Your task to perform on an android device: Open Chrome and go to settings Image 0: 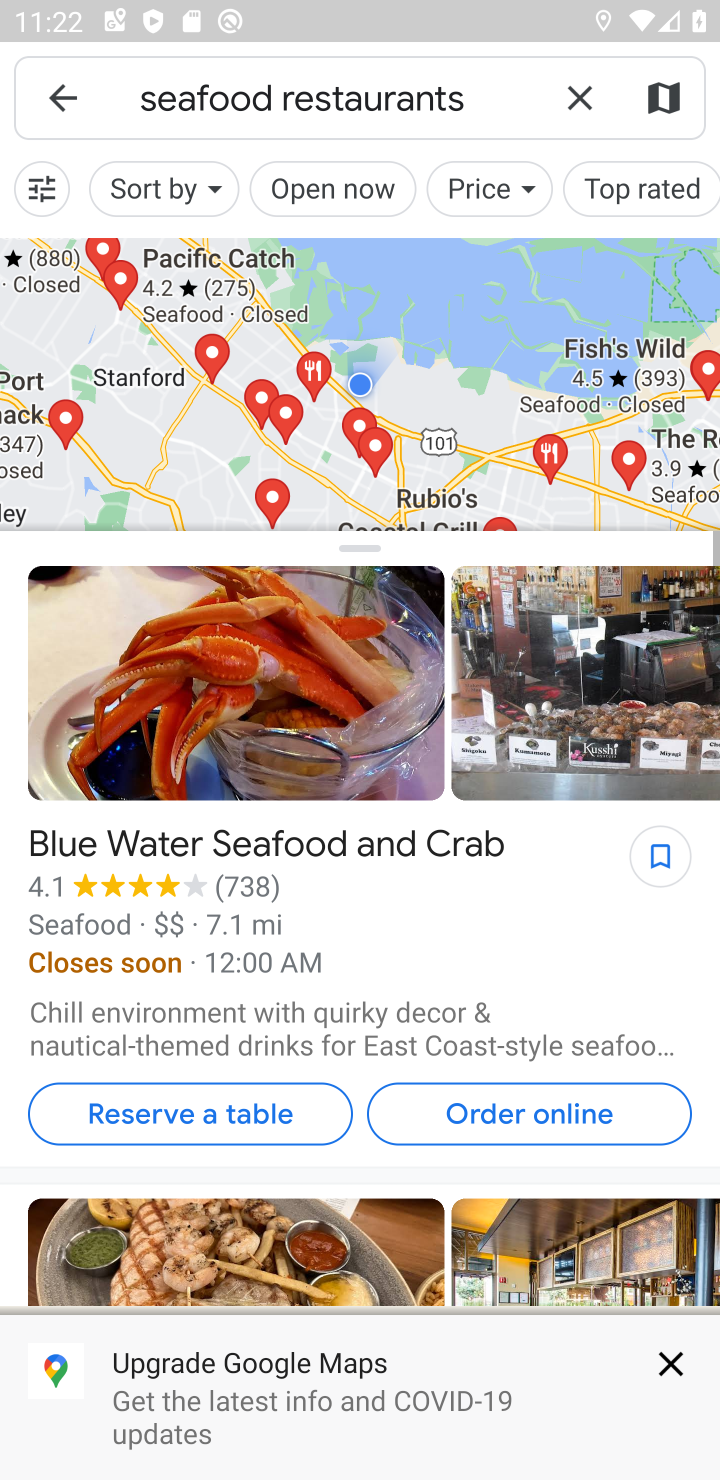
Step 0: press home button
Your task to perform on an android device: Open Chrome and go to settings Image 1: 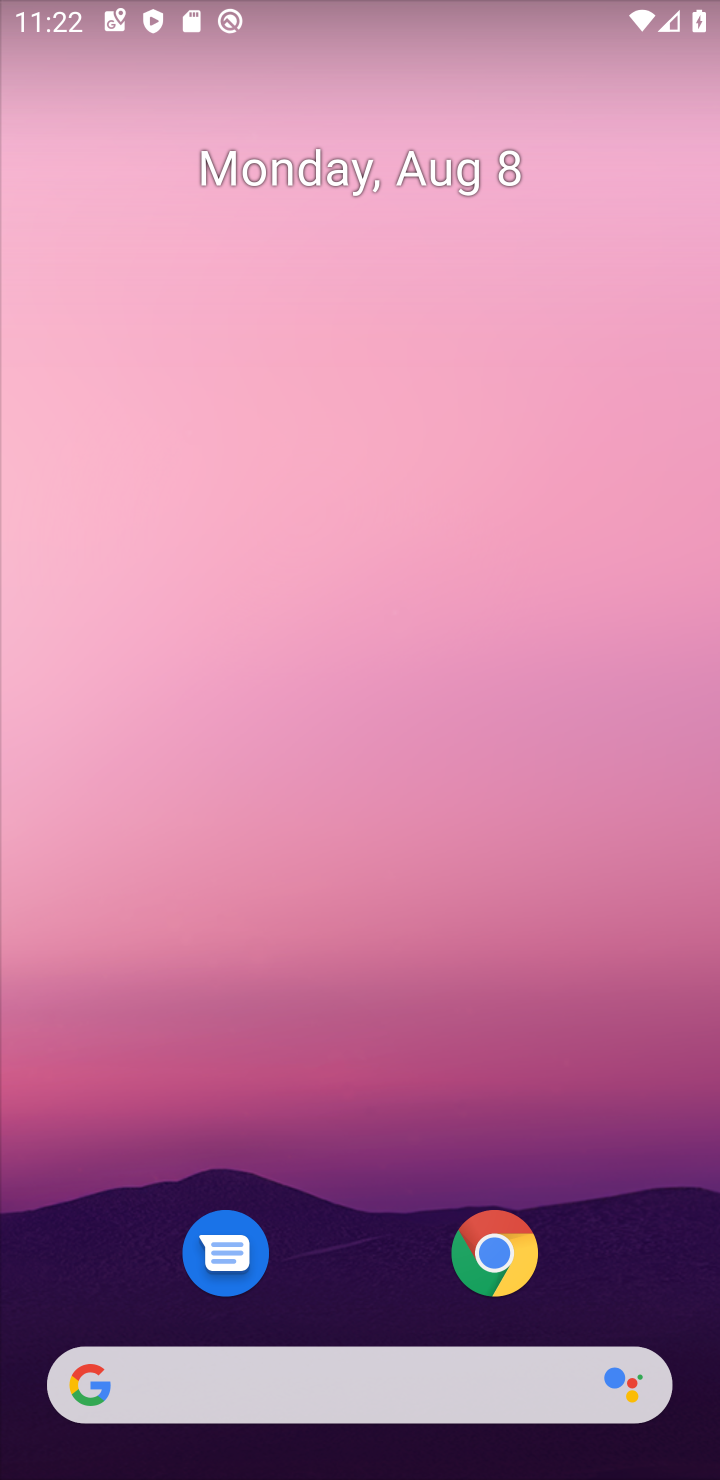
Step 1: drag from (374, 1282) to (431, 493)
Your task to perform on an android device: Open Chrome and go to settings Image 2: 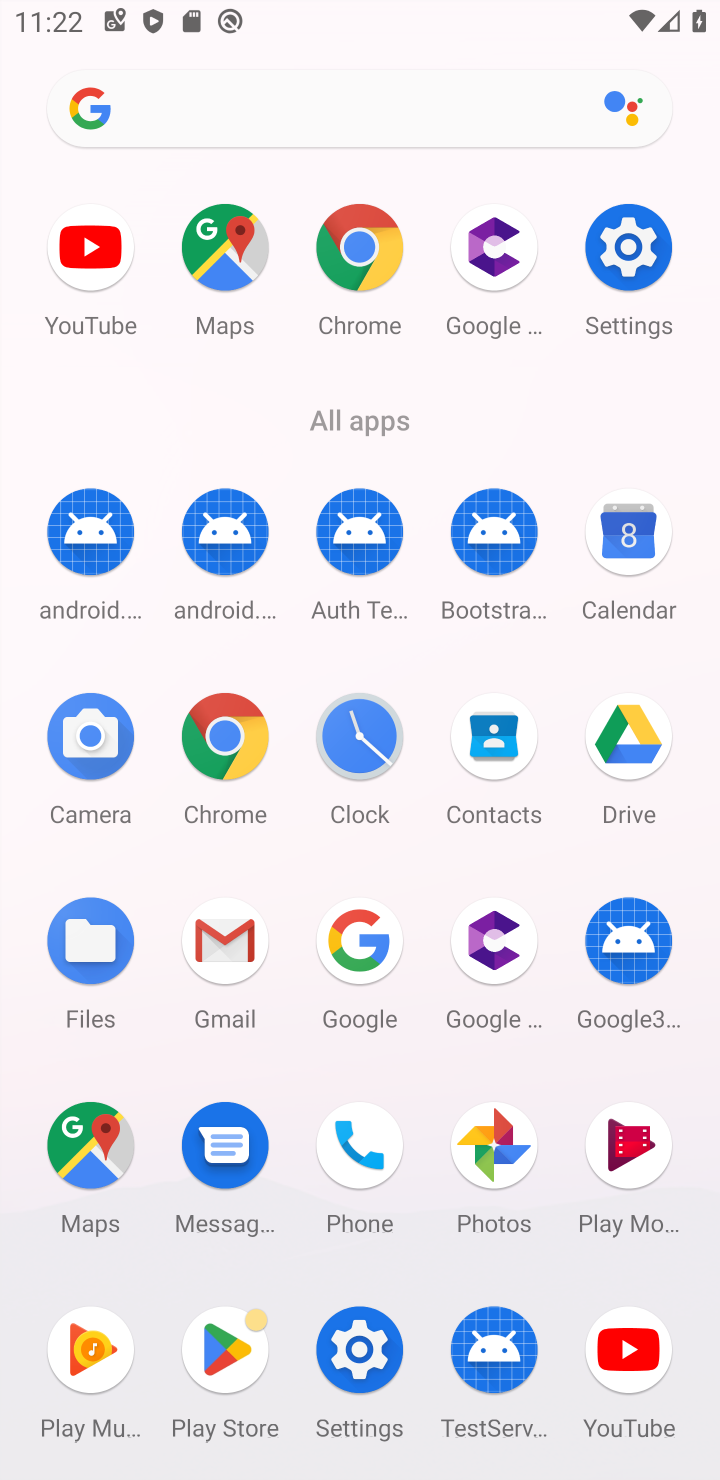
Step 2: click (371, 243)
Your task to perform on an android device: Open Chrome and go to settings Image 3: 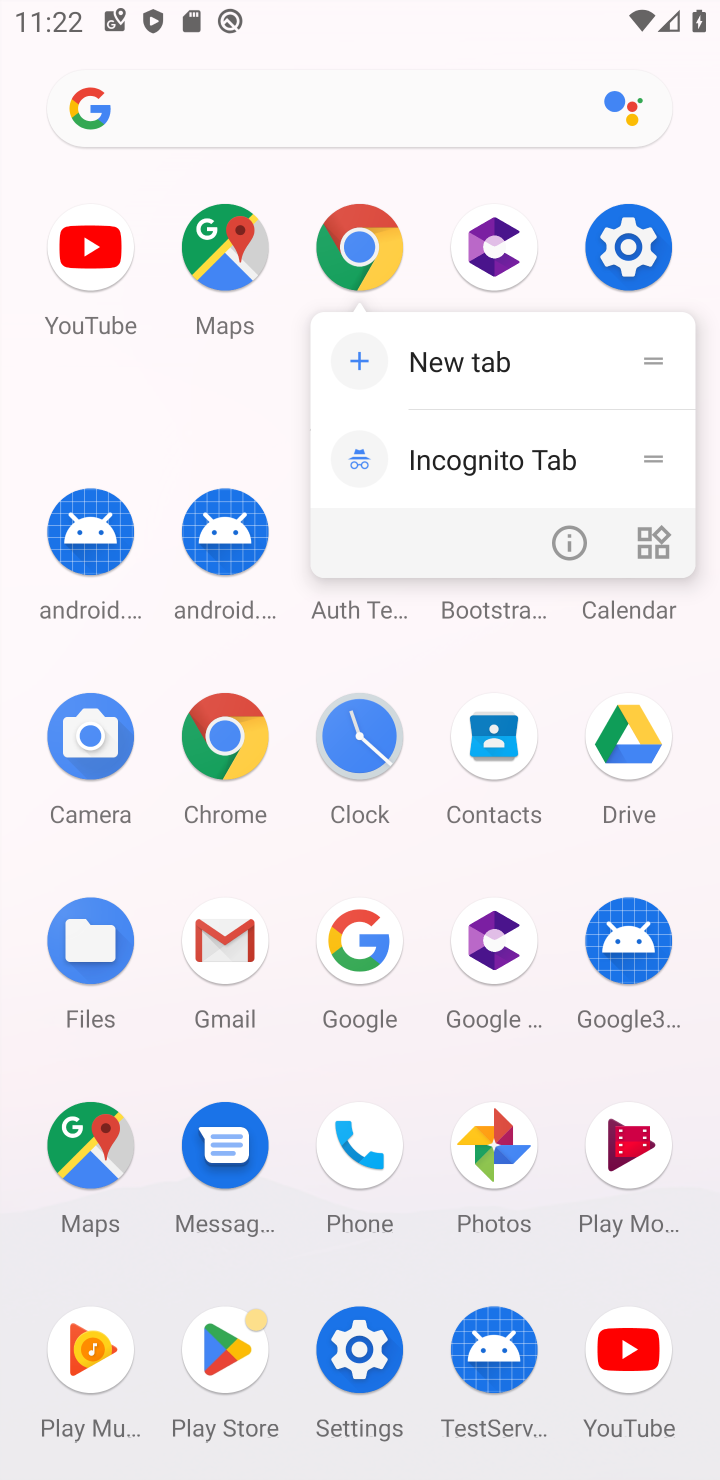
Step 3: click (367, 251)
Your task to perform on an android device: Open Chrome and go to settings Image 4: 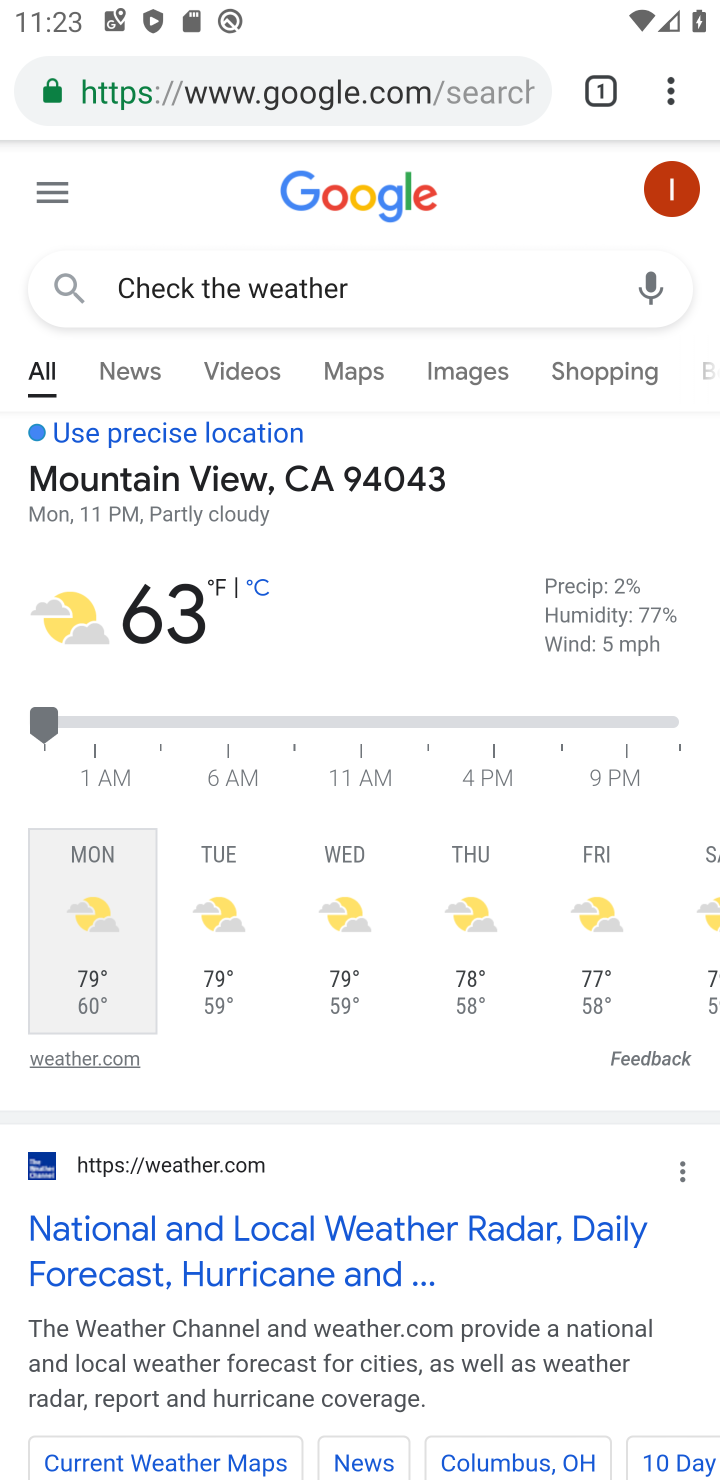
Step 4: click (665, 88)
Your task to perform on an android device: Open Chrome and go to settings Image 5: 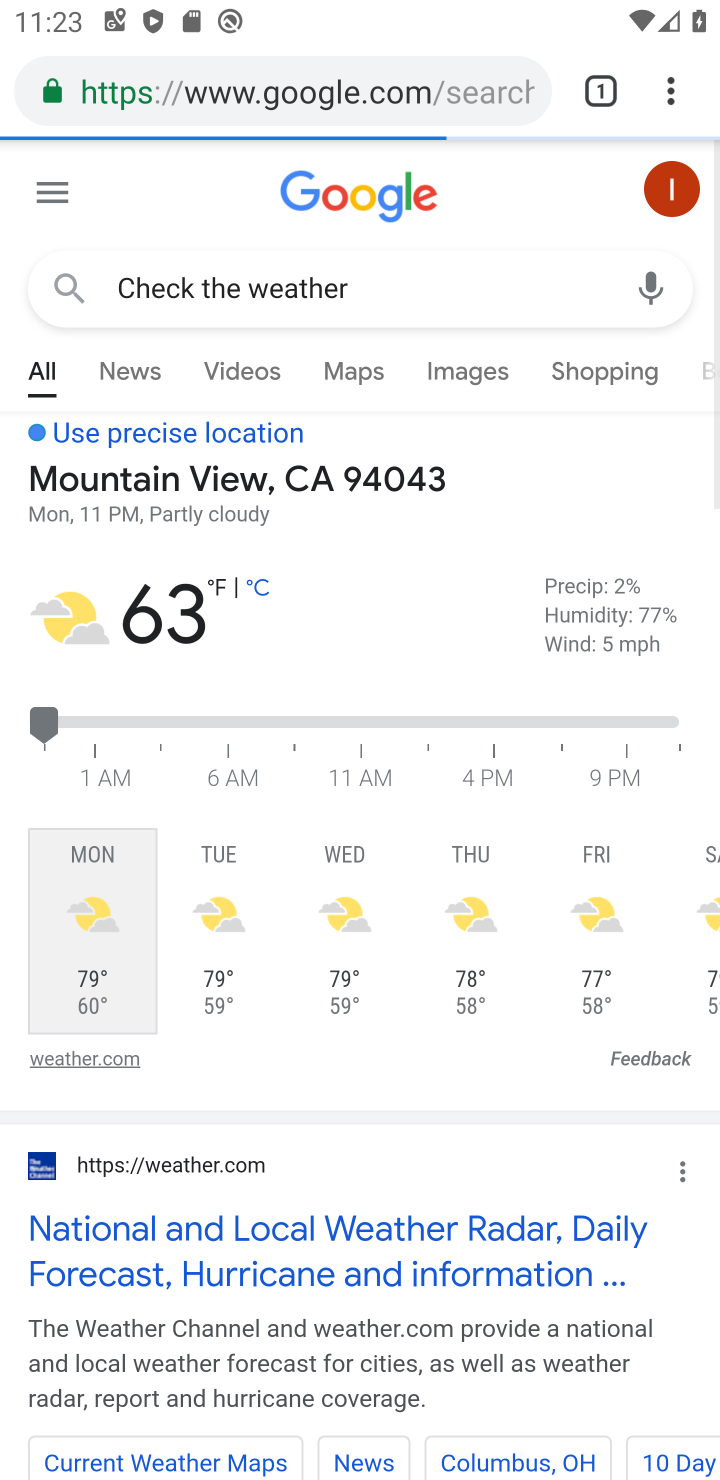
Step 5: click (665, 101)
Your task to perform on an android device: Open Chrome and go to settings Image 6: 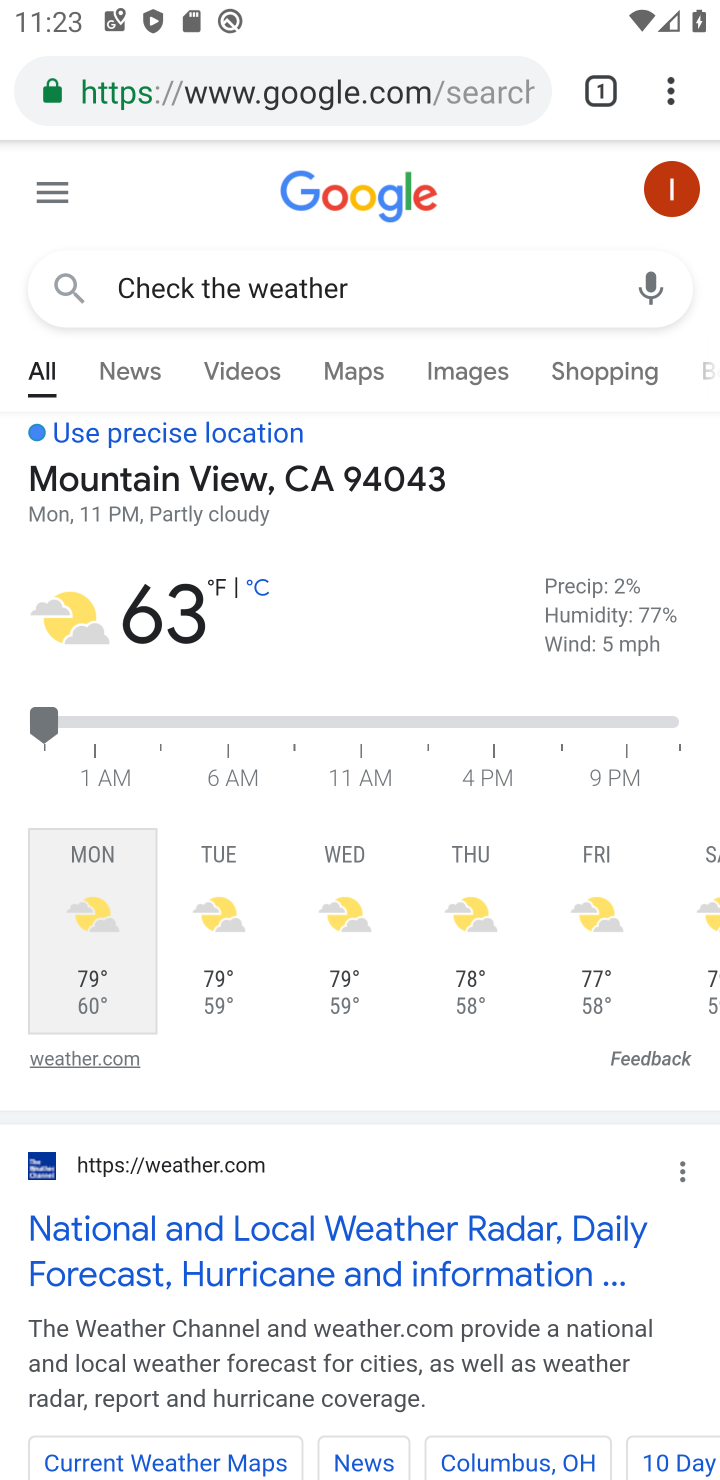
Step 6: click (665, 101)
Your task to perform on an android device: Open Chrome and go to settings Image 7: 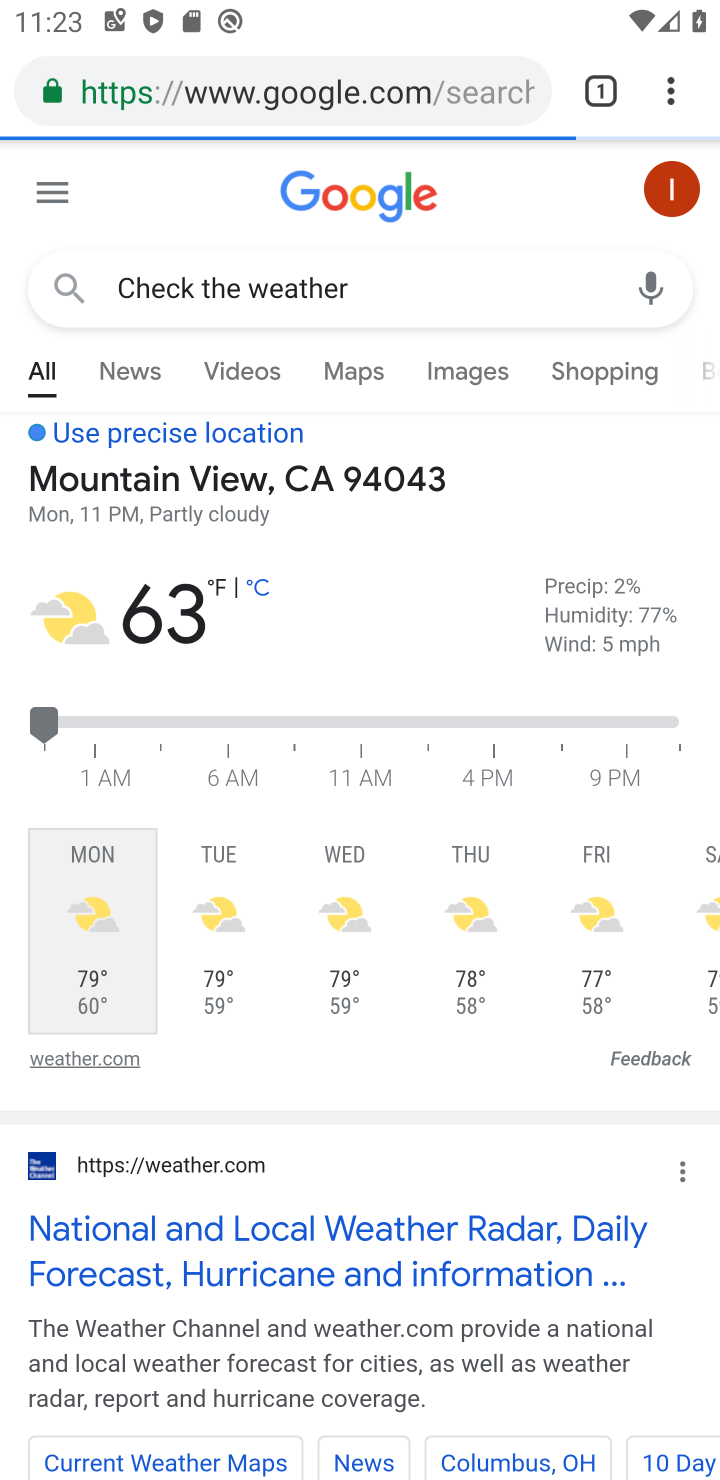
Step 7: click (668, 94)
Your task to perform on an android device: Open Chrome and go to settings Image 8: 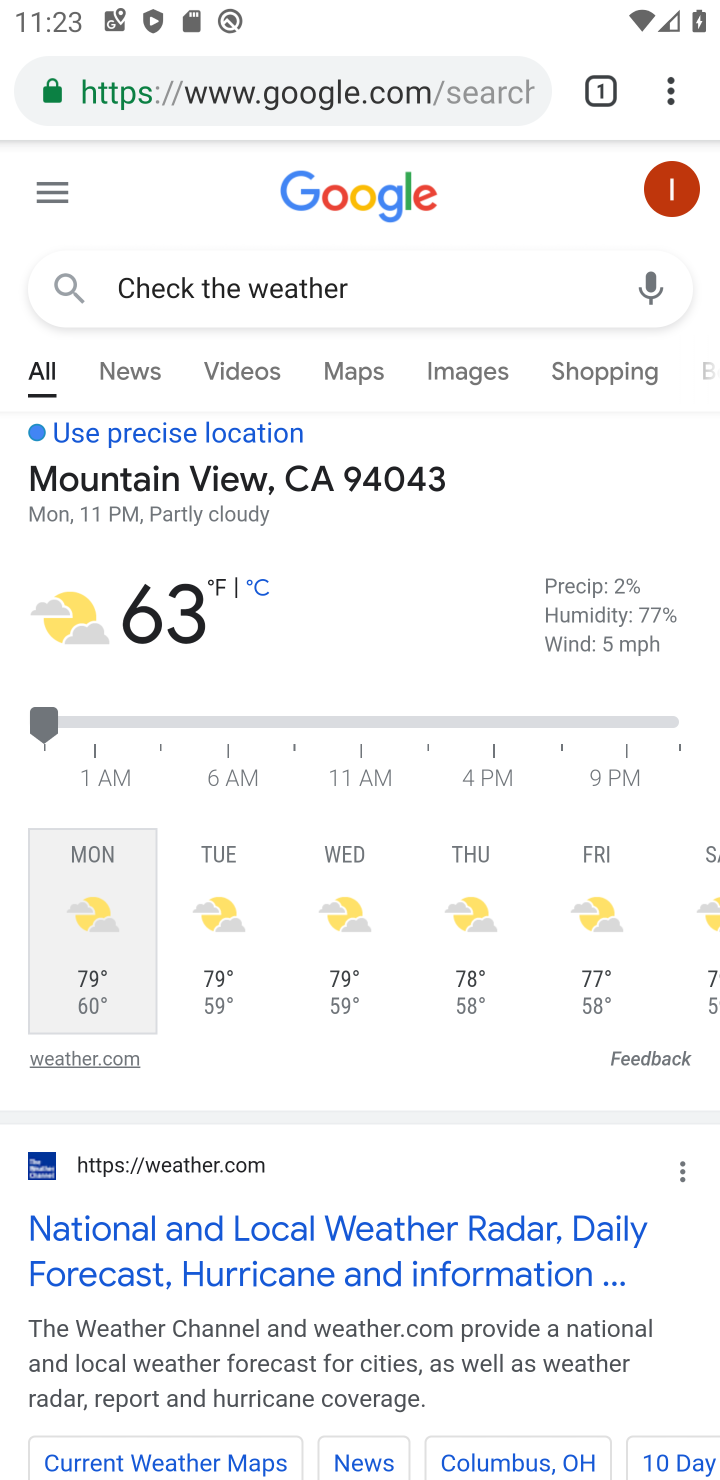
Step 8: click (657, 86)
Your task to perform on an android device: Open Chrome and go to settings Image 9: 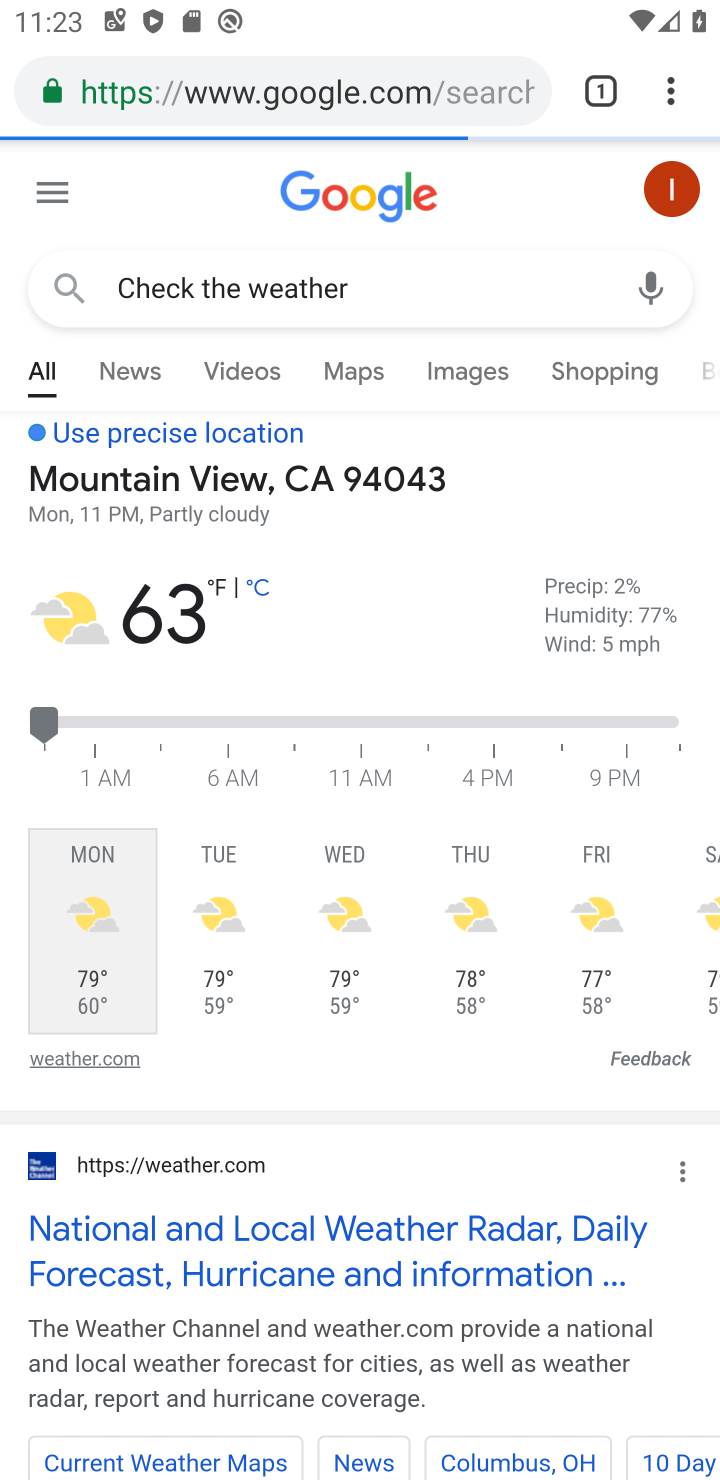
Step 9: click (664, 89)
Your task to perform on an android device: Open Chrome and go to settings Image 10: 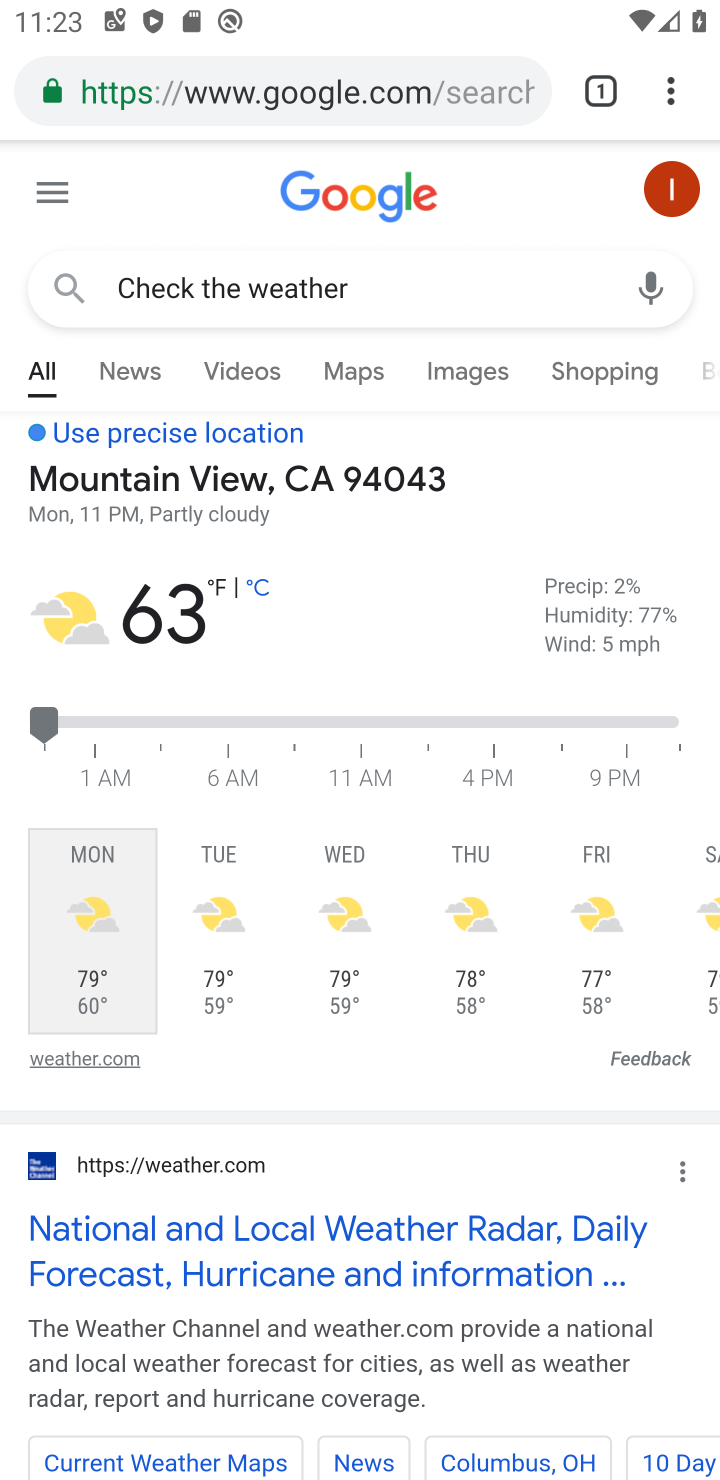
Step 10: click (679, 82)
Your task to perform on an android device: Open Chrome and go to settings Image 11: 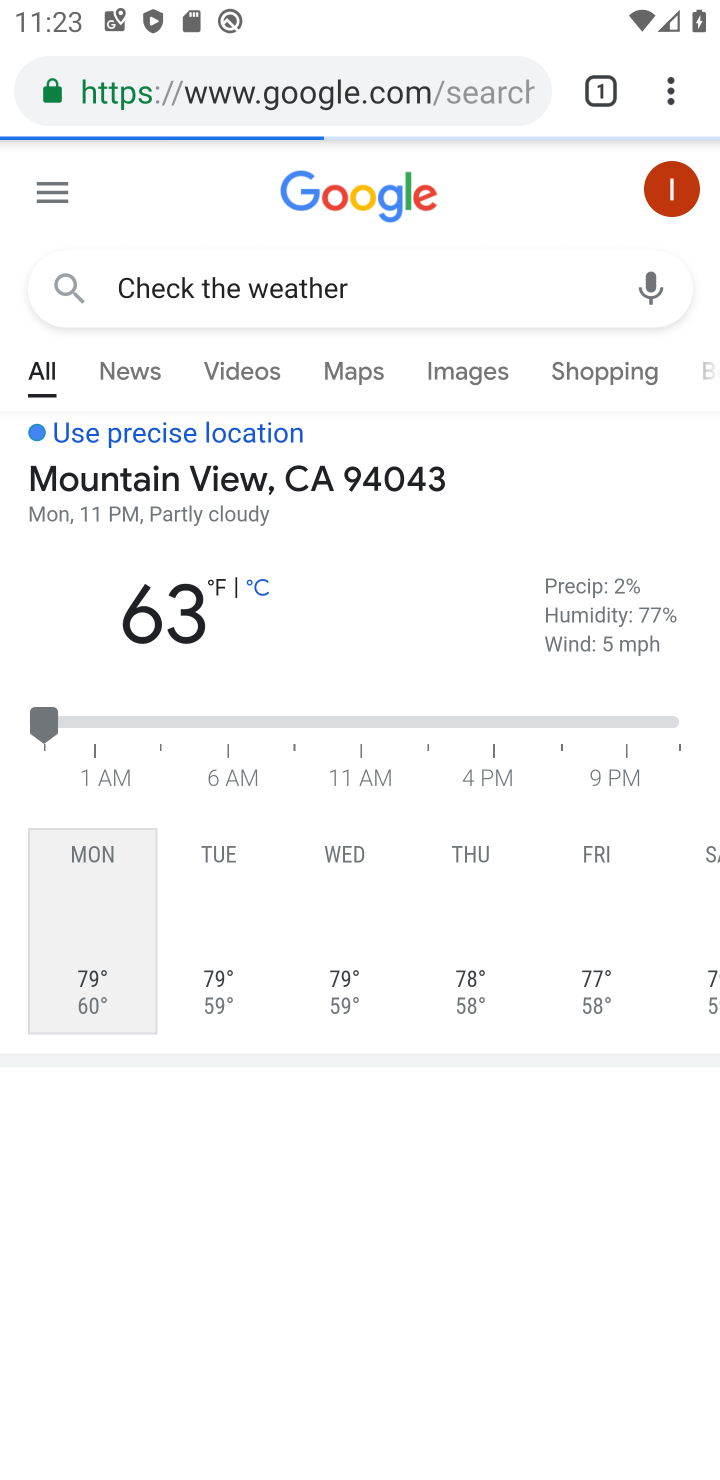
Step 11: click (679, 82)
Your task to perform on an android device: Open Chrome and go to settings Image 12: 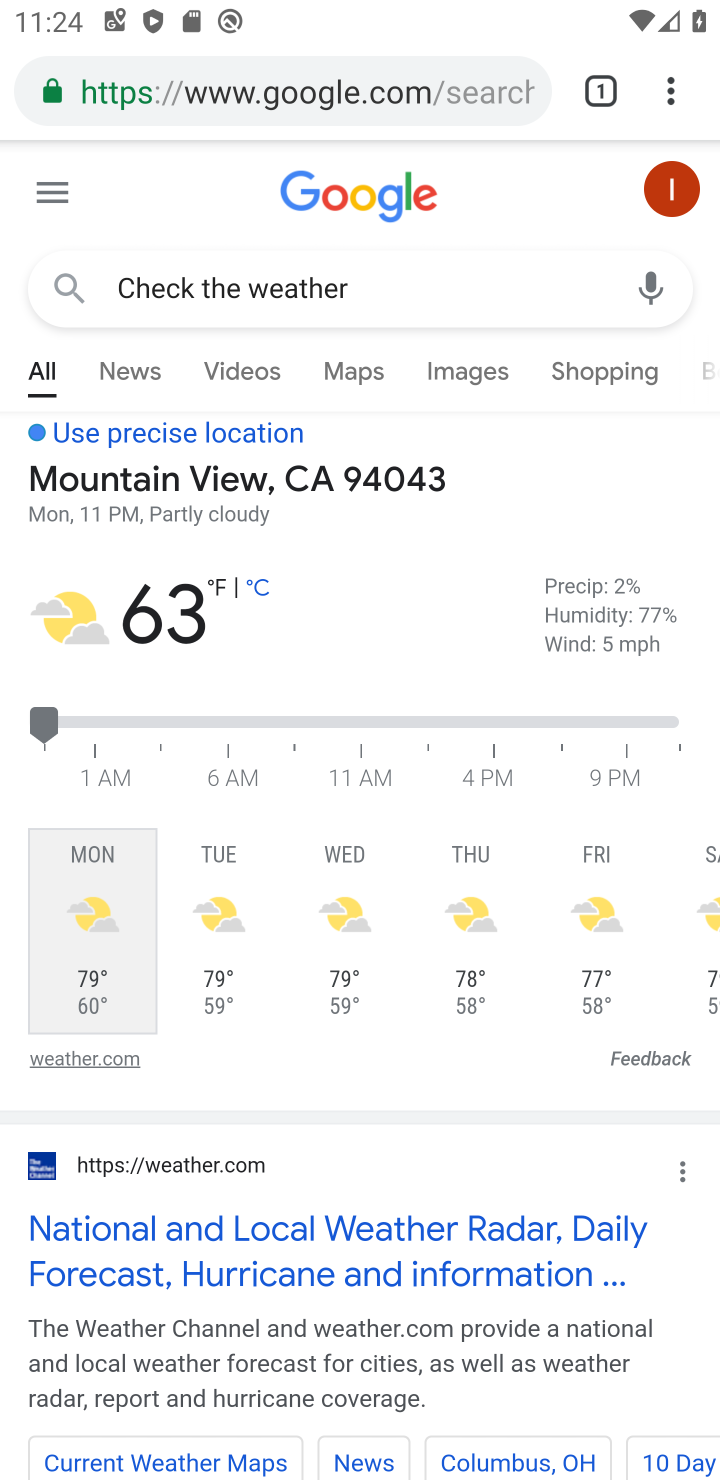
Step 12: click (662, 85)
Your task to perform on an android device: Open Chrome and go to settings Image 13: 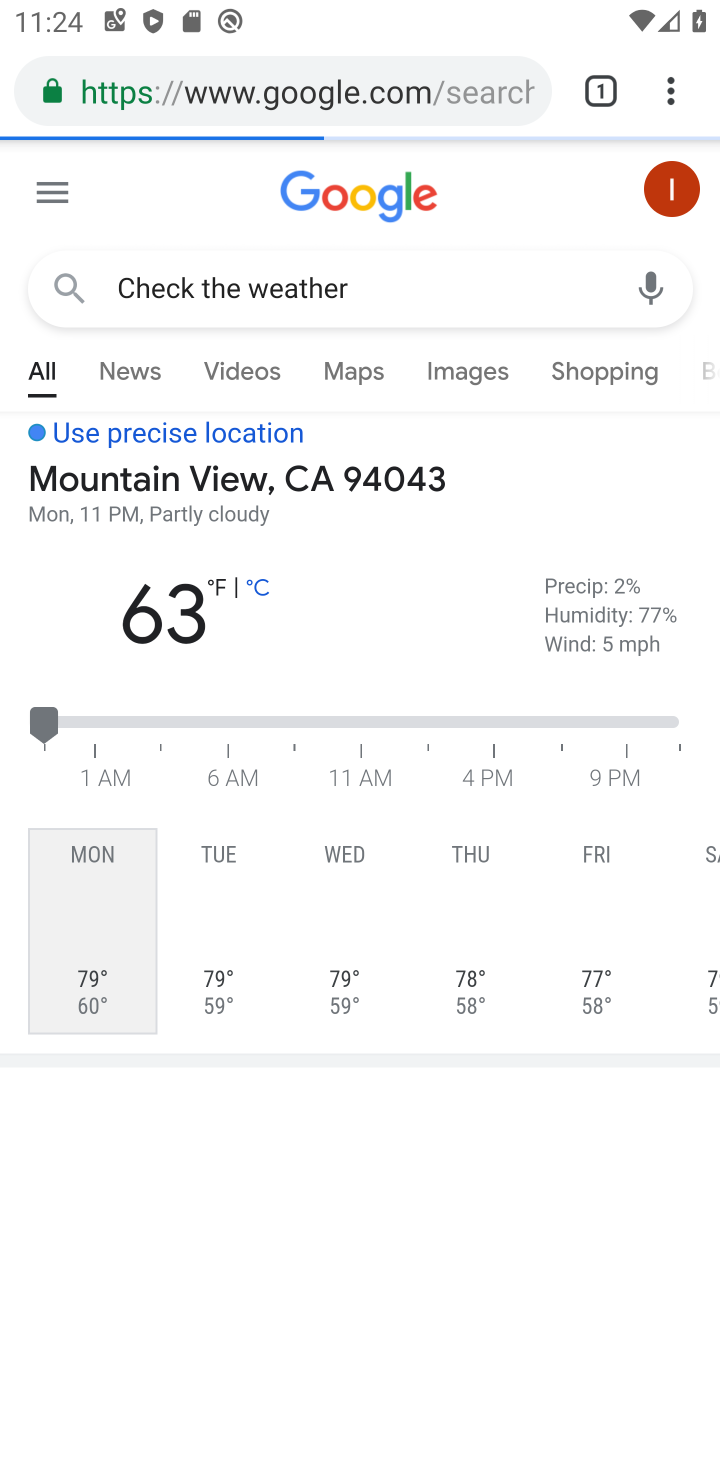
Step 13: click (662, 85)
Your task to perform on an android device: Open Chrome and go to settings Image 14: 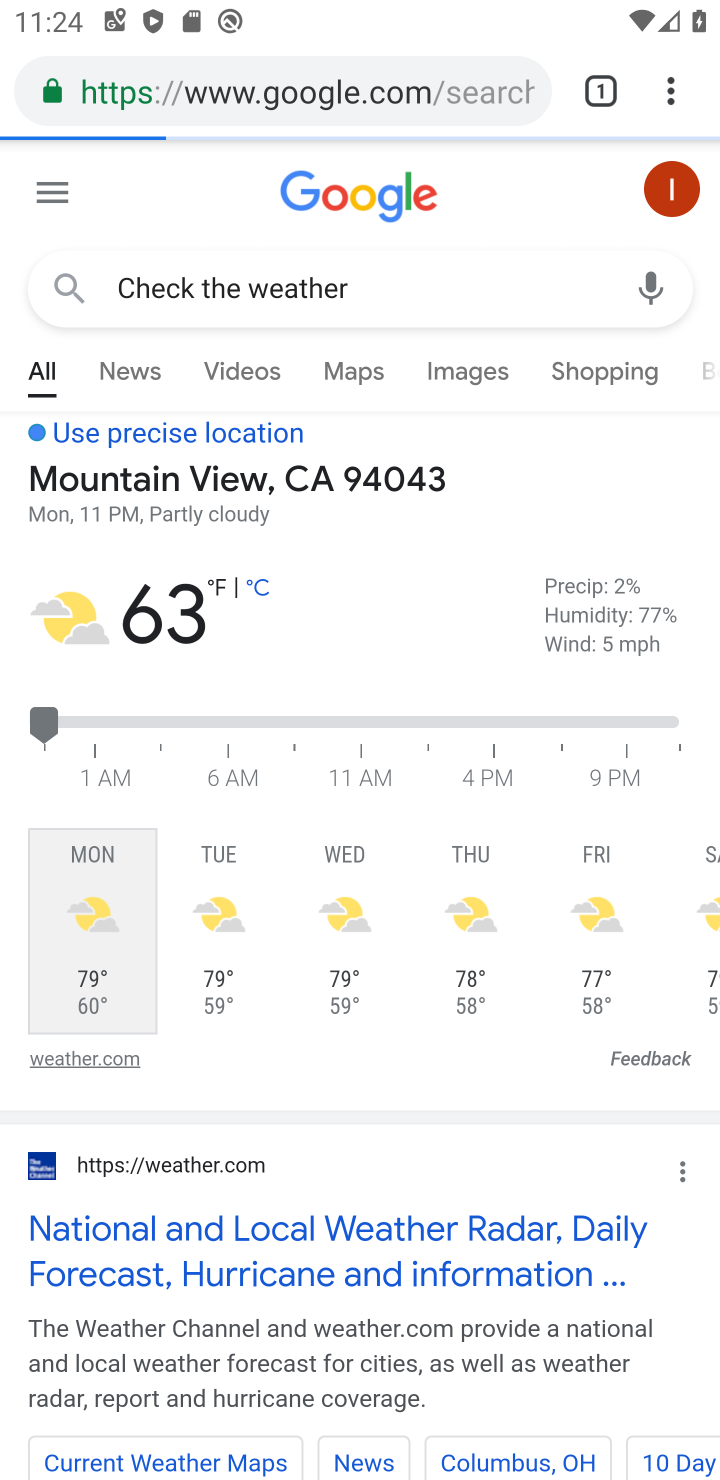
Step 14: click (662, 85)
Your task to perform on an android device: Open Chrome and go to settings Image 15: 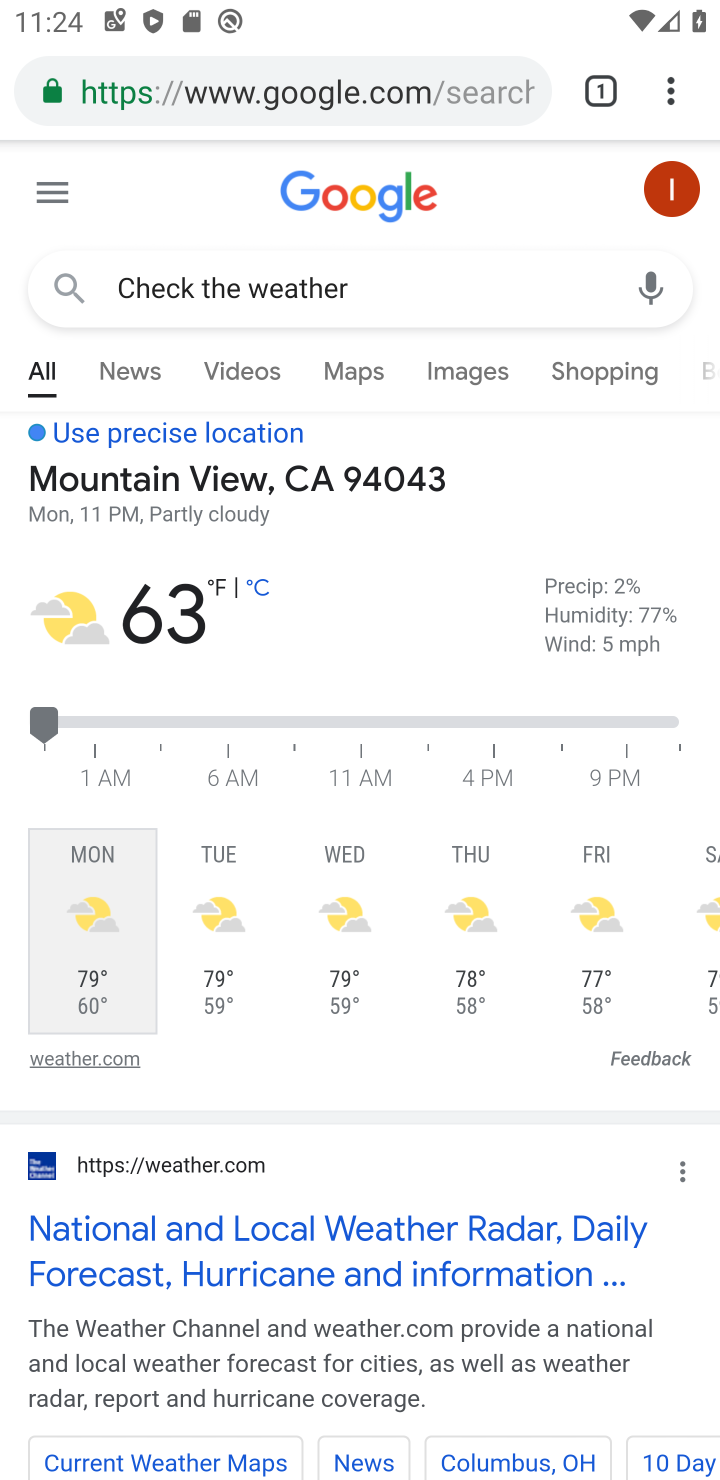
Step 15: click (646, 105)
Your task to perform on an android device: Open Chrome and go to settings Image 16: 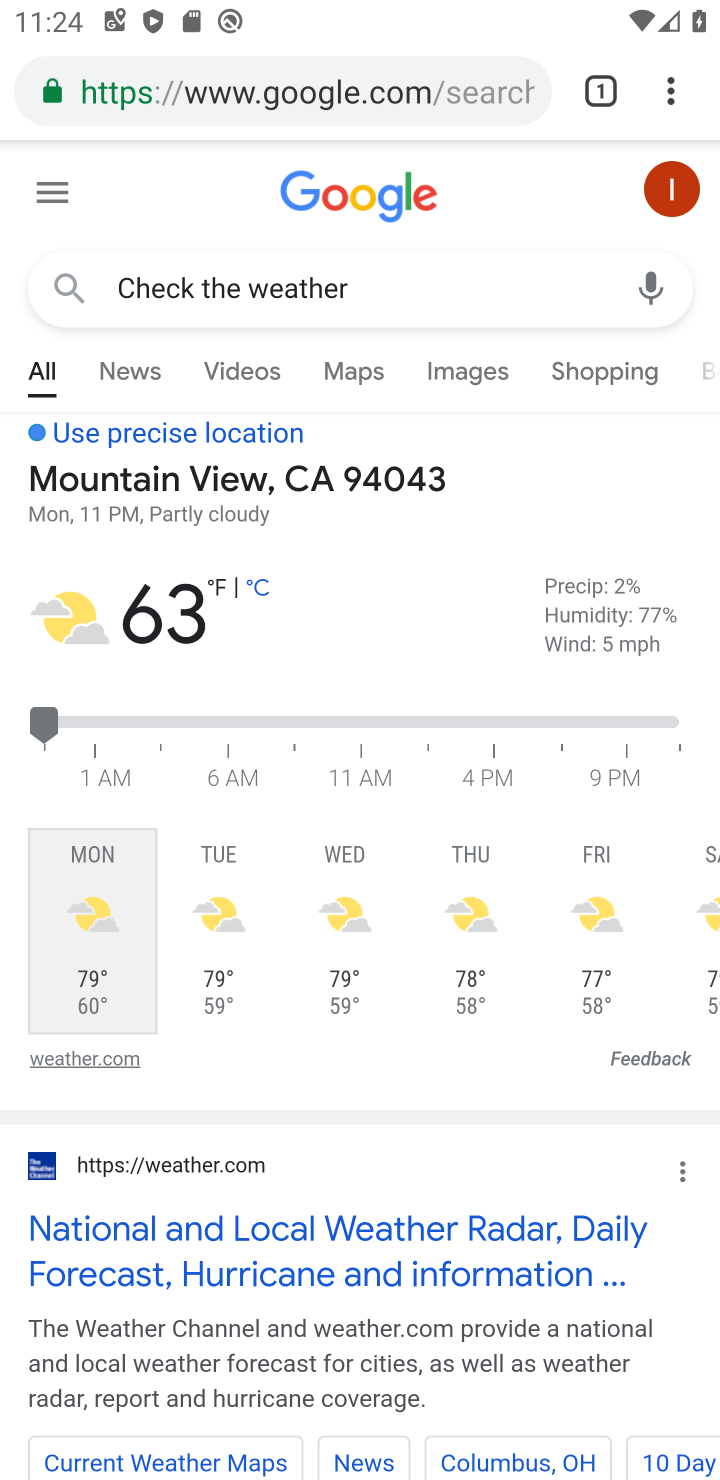
Step 16: click (681, 107)
Your task to perform on an android device: Open Chrome and go to settings Image 17: 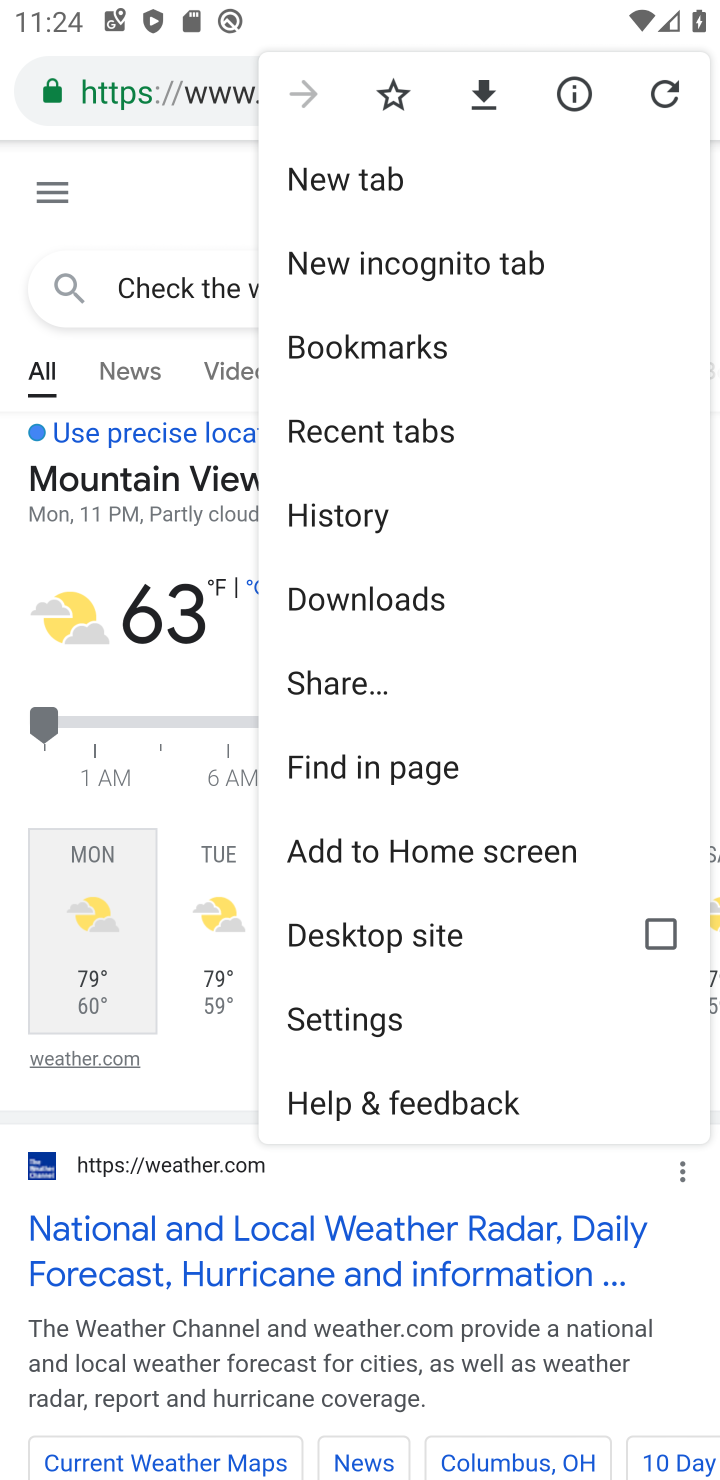
Step 17: click (302, 991)
Your task to perform on an android device: Open Chrome and go to settings Image 18: 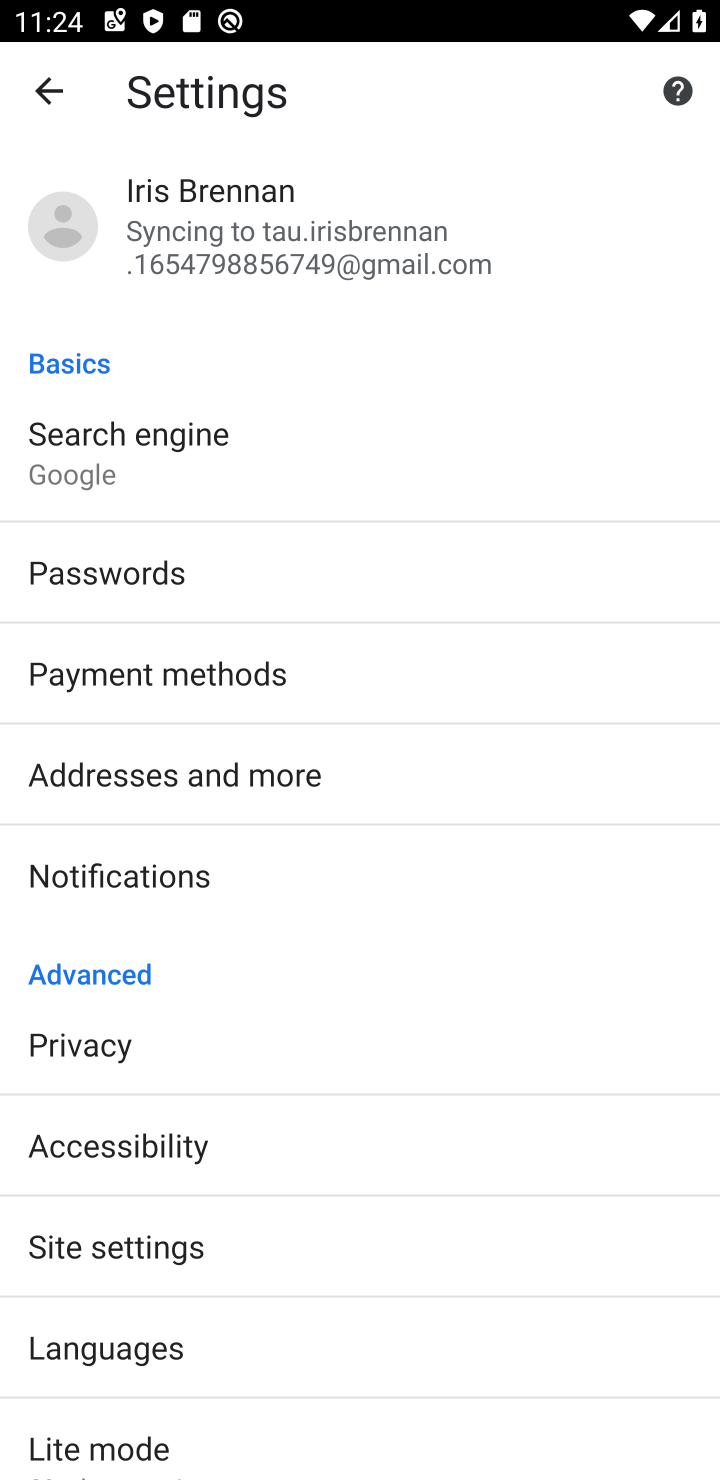
Step 18: task complete